Your task to perform on an android device: toggle priority inbox in the gmail app Image 0: 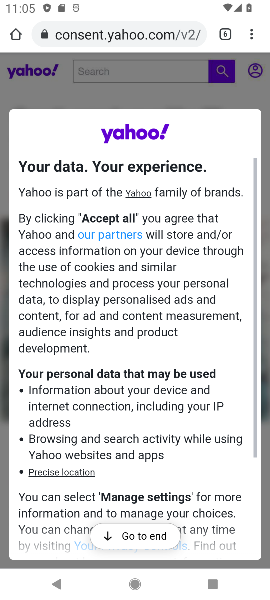
Step 0: press back button
Your task to perform on an android device: toggle priority inbox in the gmail app Image 1: 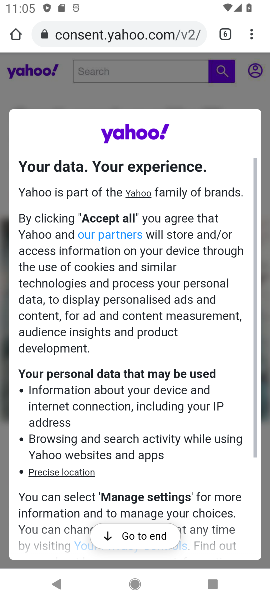
Step 1: press back button
Your task to perform on an android device: toggle priority inbox in the gmail app Image 2: 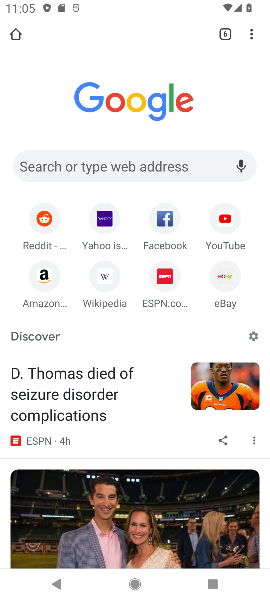
Step 2: press back button
Your task to perform on an android device: toggle priority inbox in the gmail app Image 3: 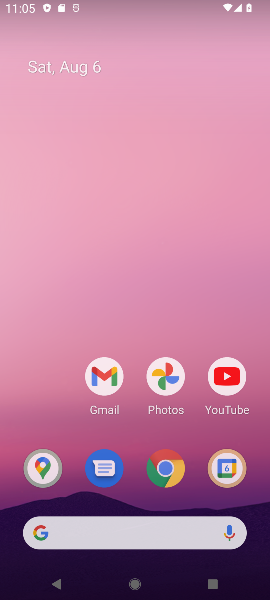
Step 3: press back button
Your task to perform on an android device: toggle priority inbox in the gmail app Image 4: 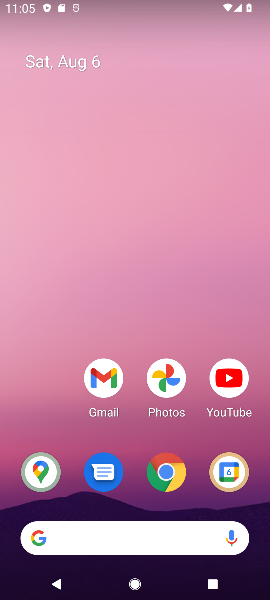
Step 4: drag from (180, 444) to (170, 122)
Your task to perform on an android device: toggle priority inbox in the gmail app Image 5: 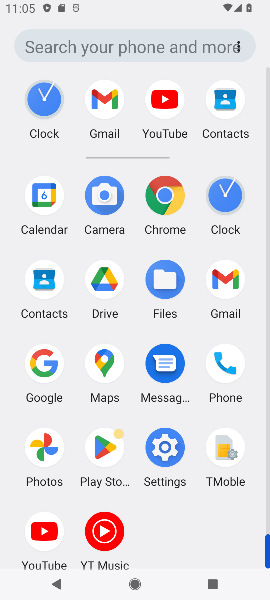
Step 5: click (219, 278)
Your task to perform on an android device: toggle priority inbox in the gmail app Image 6: 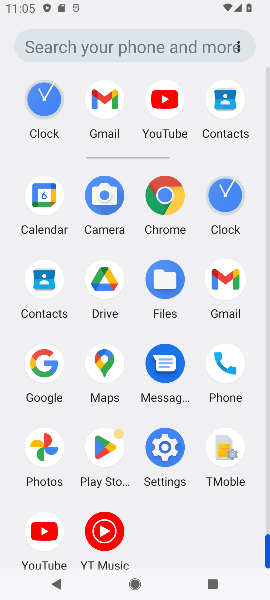
Step 6: click (220, 281)
Your task to perform on an android device: toggle priority inbox in the gmail app Image 7: 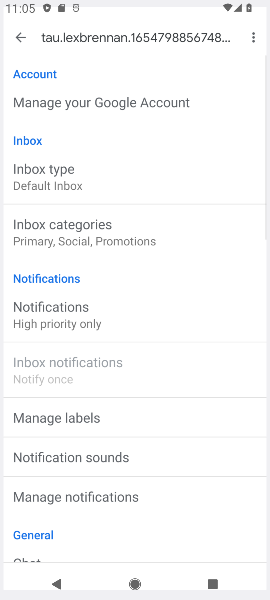
Step 7: click (221, 281)
Your task to perform on an android device: toggle priority inbox in the gmail app Image 8: 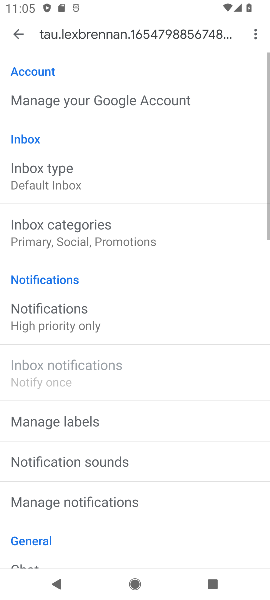
Step 8: click (225, 281)
Your task to perform on an android device: toggle priority inbox in the gmail app Image 9: 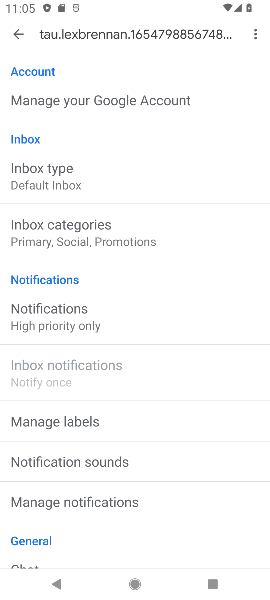
Step 9: click (44, 175)
Your task to perform on an android device: toggle priority inbox in the gmail app Image 10: 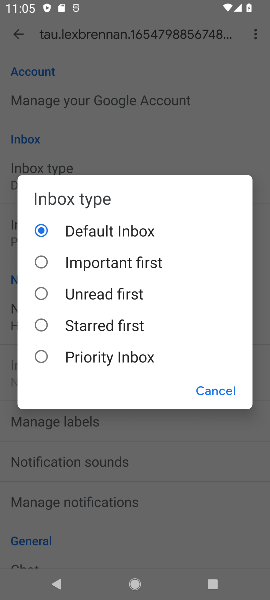
Step 10: click (32, 353)
Your task to perform on an android device: toggle priority inbox in the gmail app Image 11: 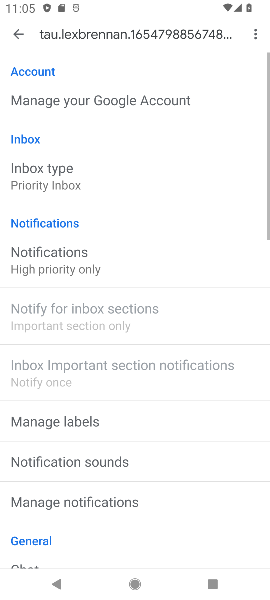
Step 11: task complete